Your task to perform on an android device: open a bookmark in the chrome app Image 0: 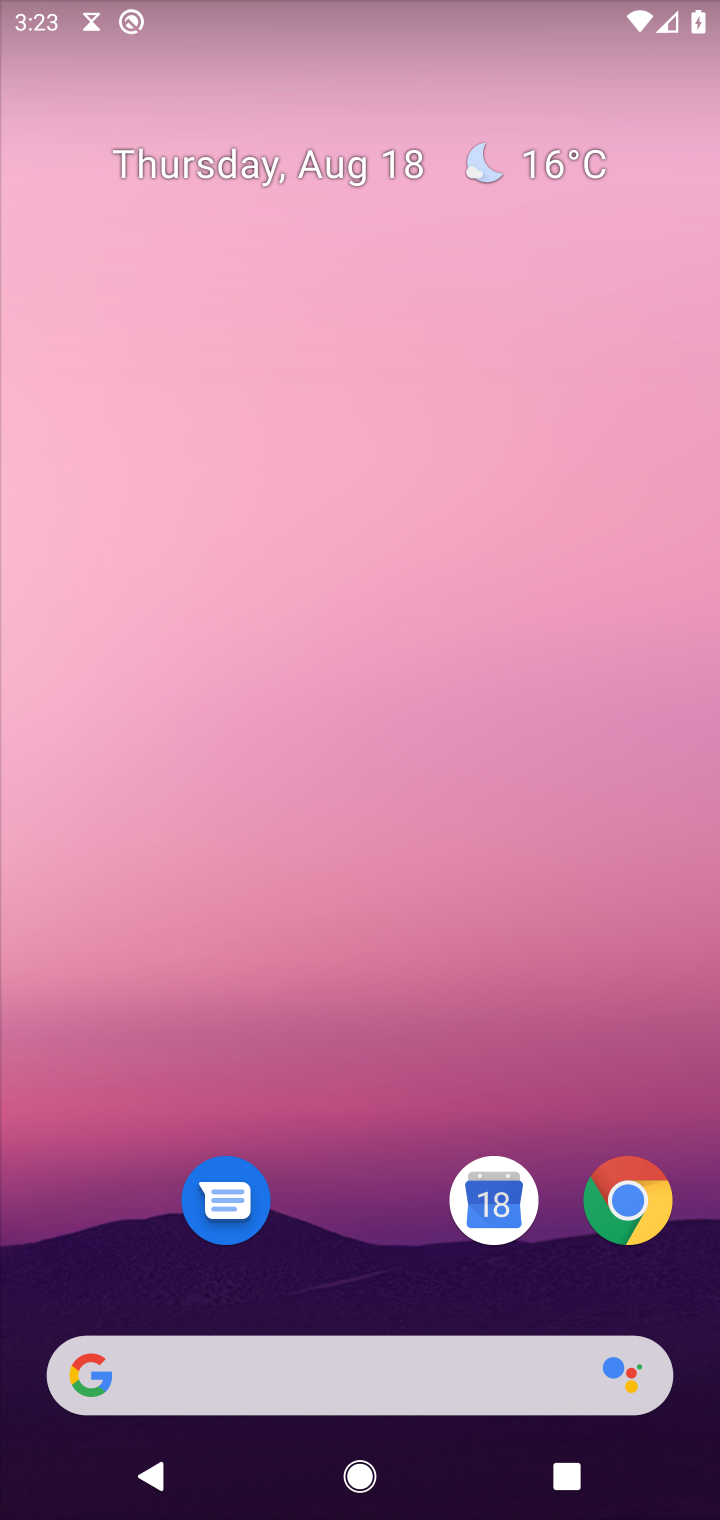
Step 0: drag from (399, 1222) to (349, 188)
Your task to perform on an android device: open a bookmark in the chrome app Image 1: 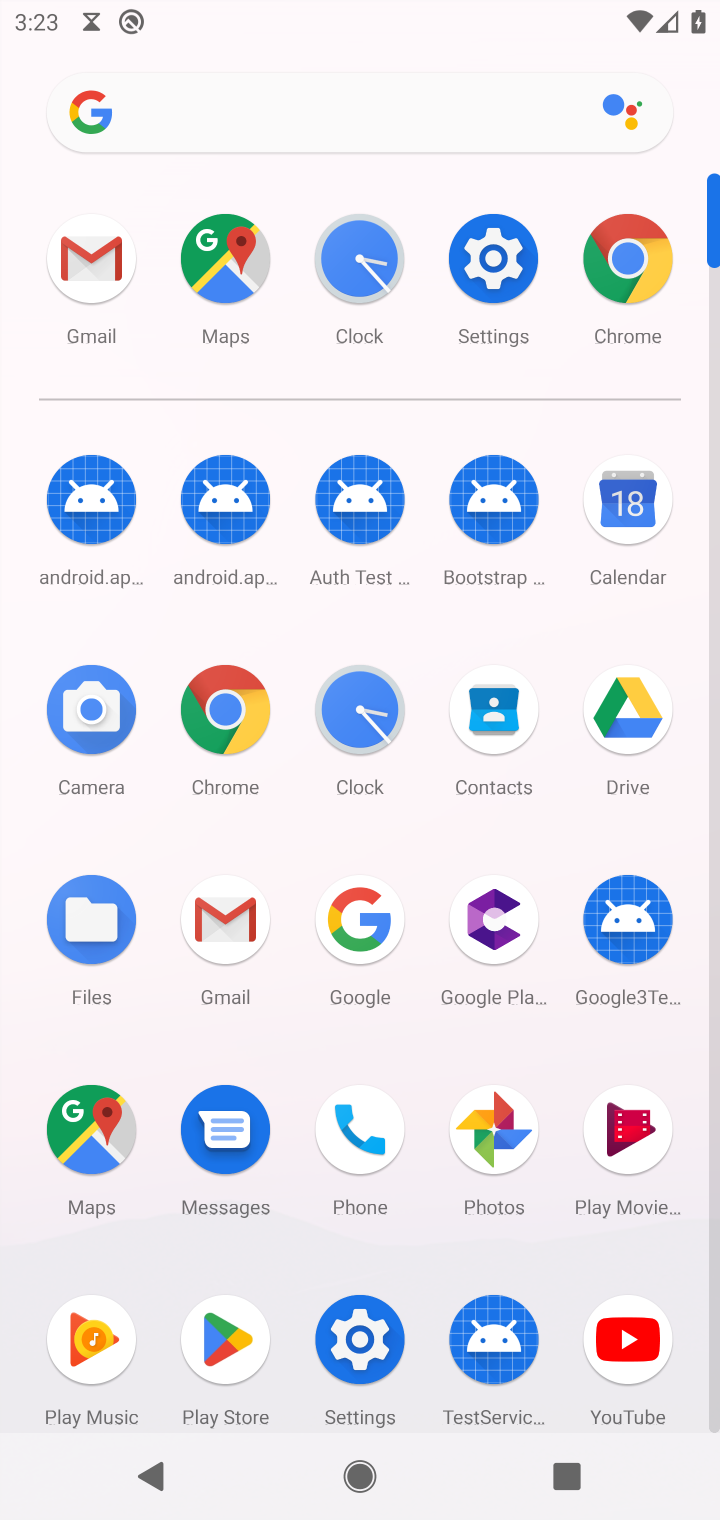
Step 1: click (251, 717)
Your task to perform on an android device: open a bookmark in the chrome app Image 2: 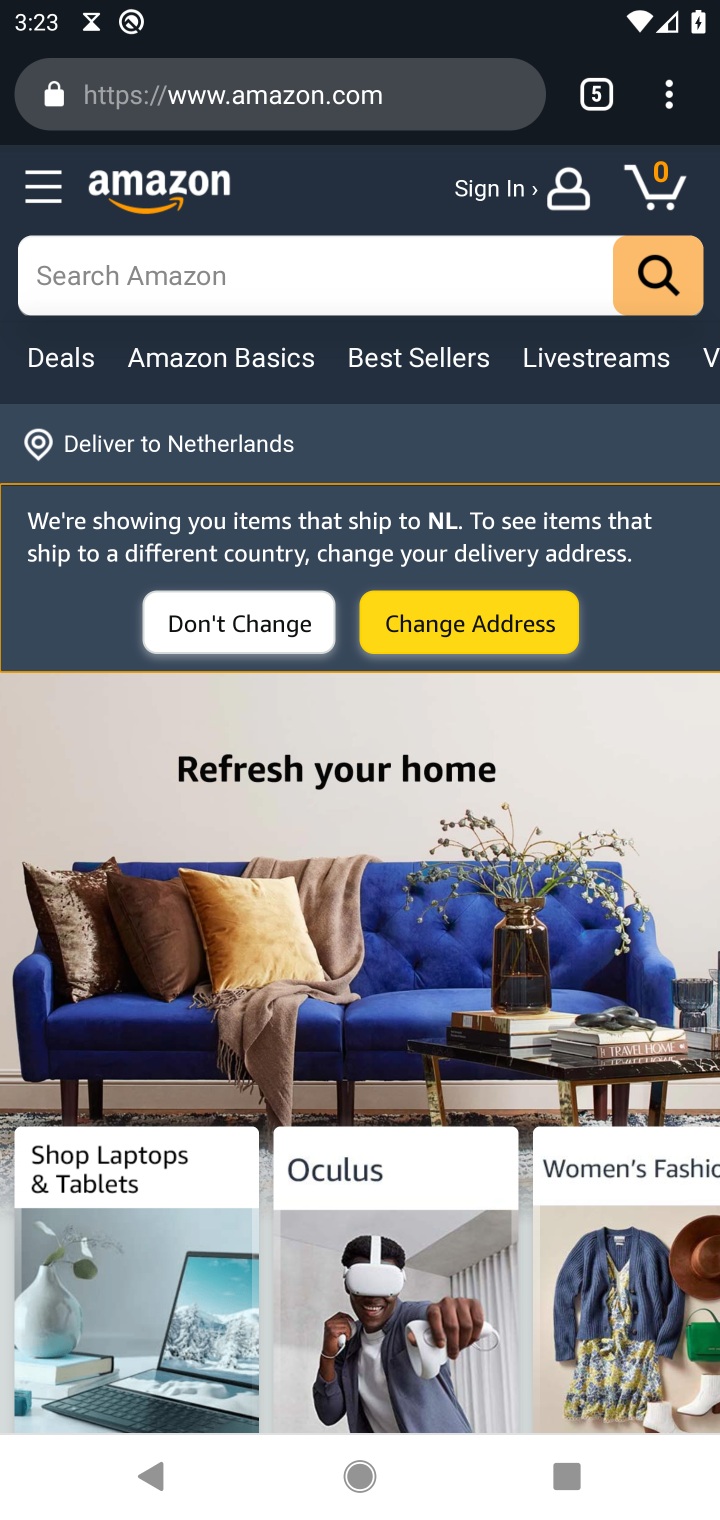
Step 2: task complete